Your task to perform on an android device: Open my contact list Image 0: 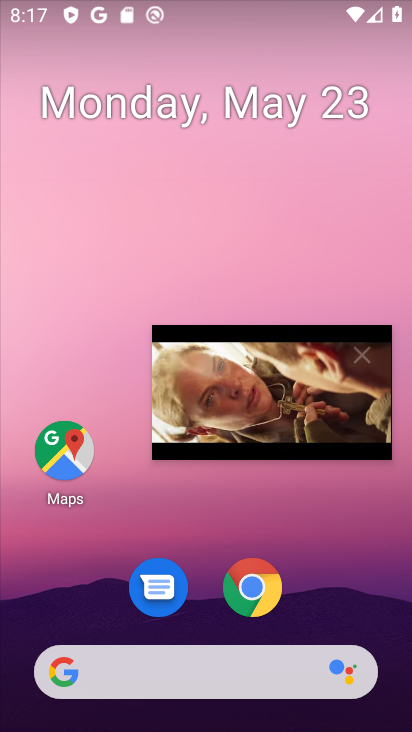
Step 0: click (244, 385)
Your task to perform on an android device: Open my contact list Image 1: 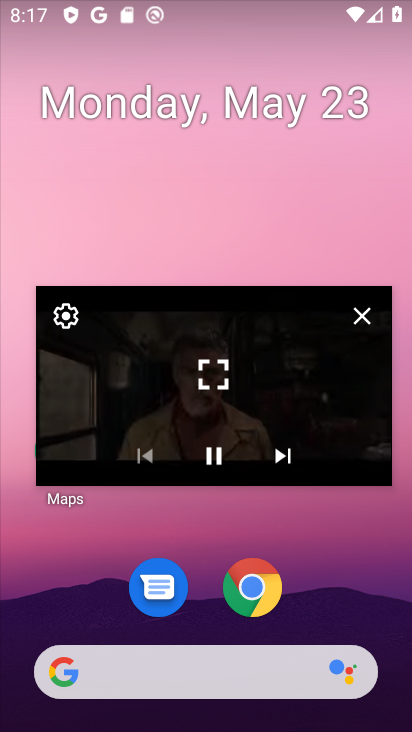
Step 1: click (212, 360)
Your task to perform on an android device: Open my contact list Image 2: 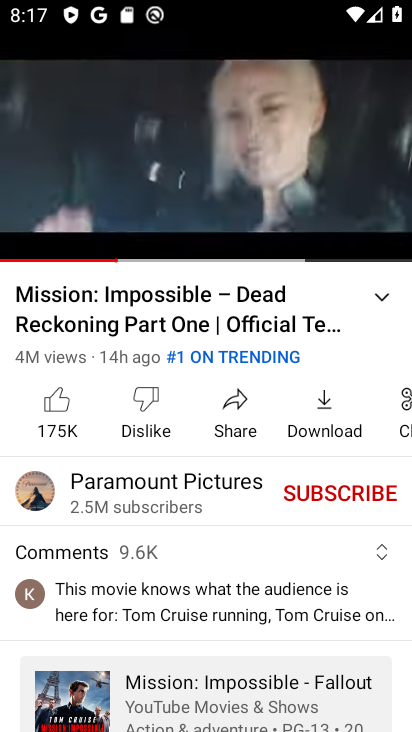
Step 2: click (194, 108)
Your task to perform on an android device: Open my contact list Image 3: 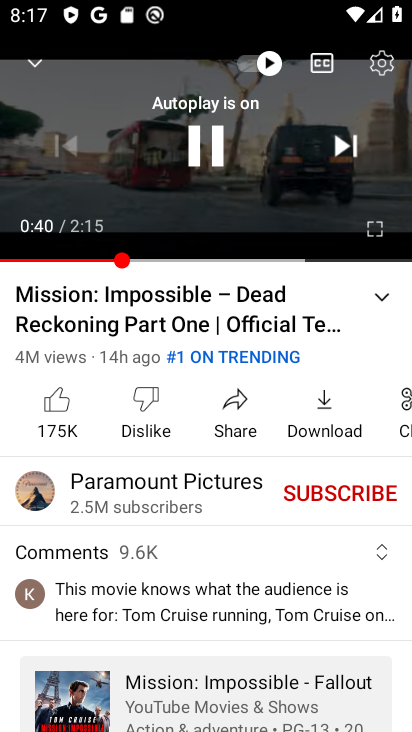
Step 3: click (212, 145)
Your task to perform on an android device: Open my contact list Image 4: 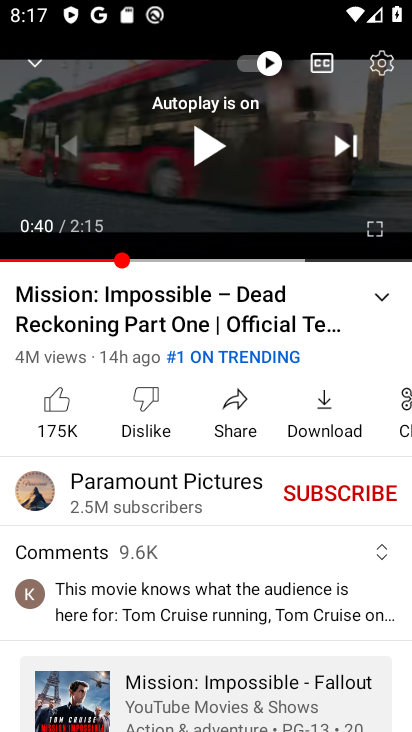
Step 4: press home button
Your task to perform on an android device: Open my contact list Image 5: 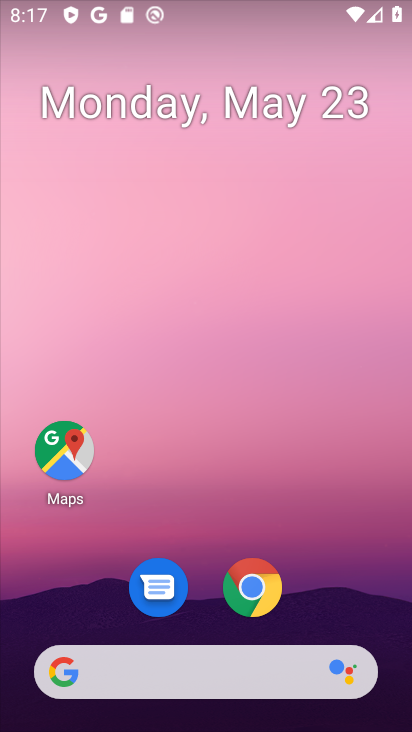
Step 5: drag from (187, 606) to (282, 132)
Your task to perform on an android device: Open my contact list Image 6: 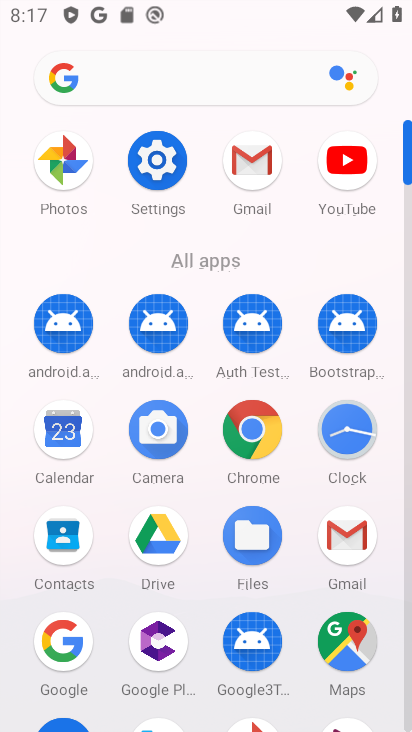
Step 6: click (48, 557)
Your task to perform on an android device: Open my contact list Image 7: 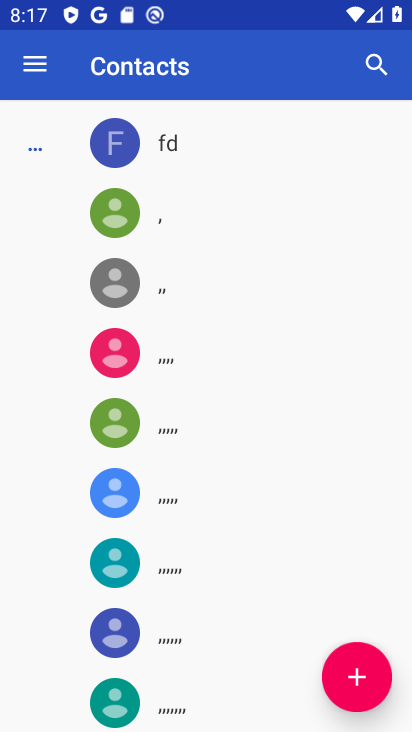
Step 7: task complete